Your task to perform on an android device: install app "YouTube Kids" Image 0: 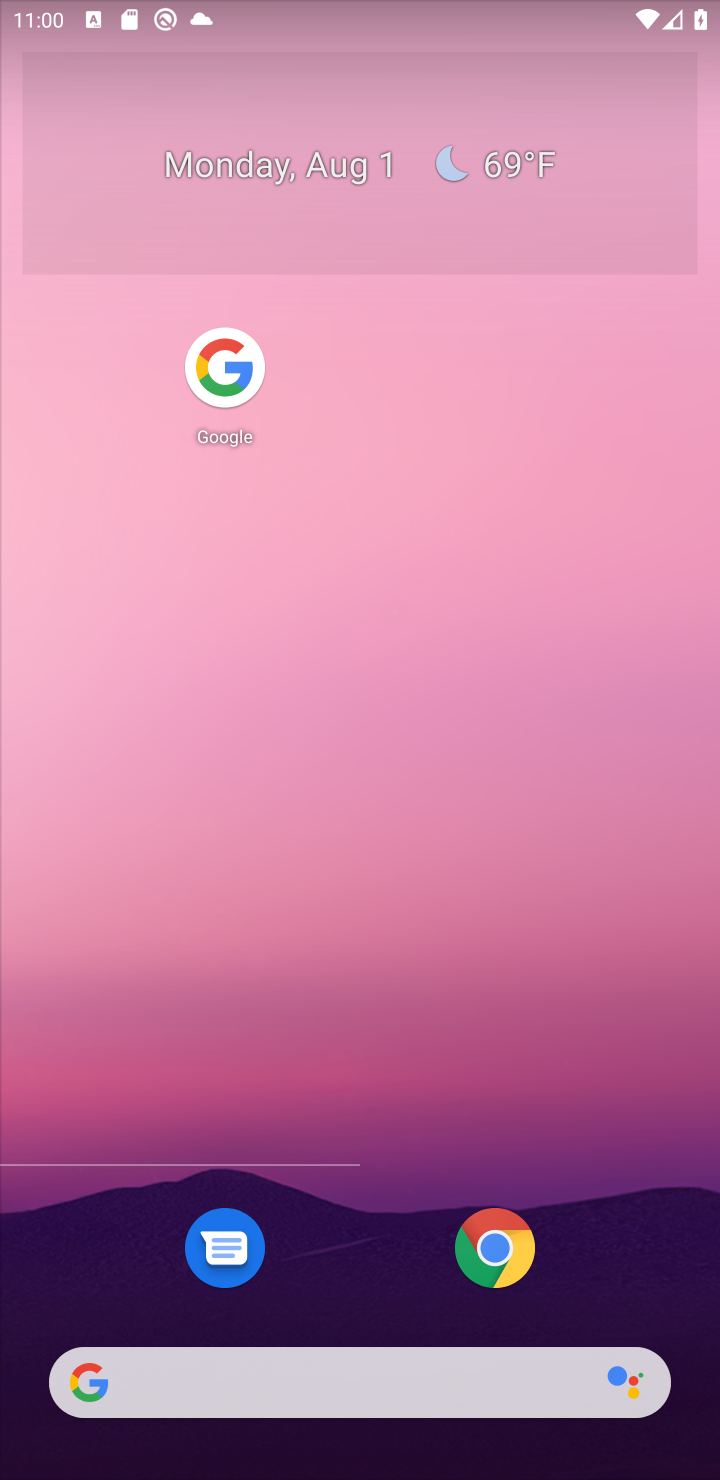
Step 0: drag from (394, 677) to (474, 55)
Your task to perform on an android device: install app "YouTube Kids" Image 1: 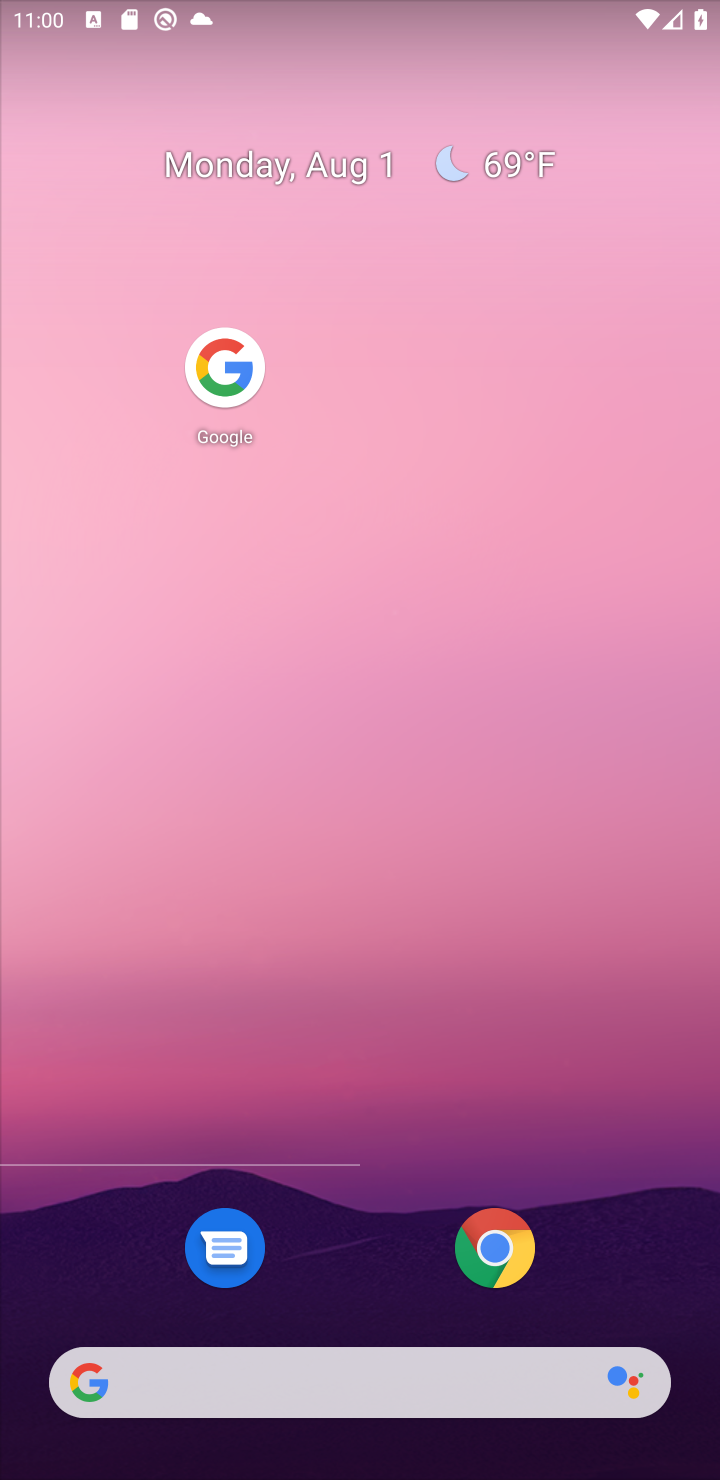
Step 1: drag from (398, 1179) to (540, 0)
Your task to perform on an android device: install app "YouTube Kids" Image 2: 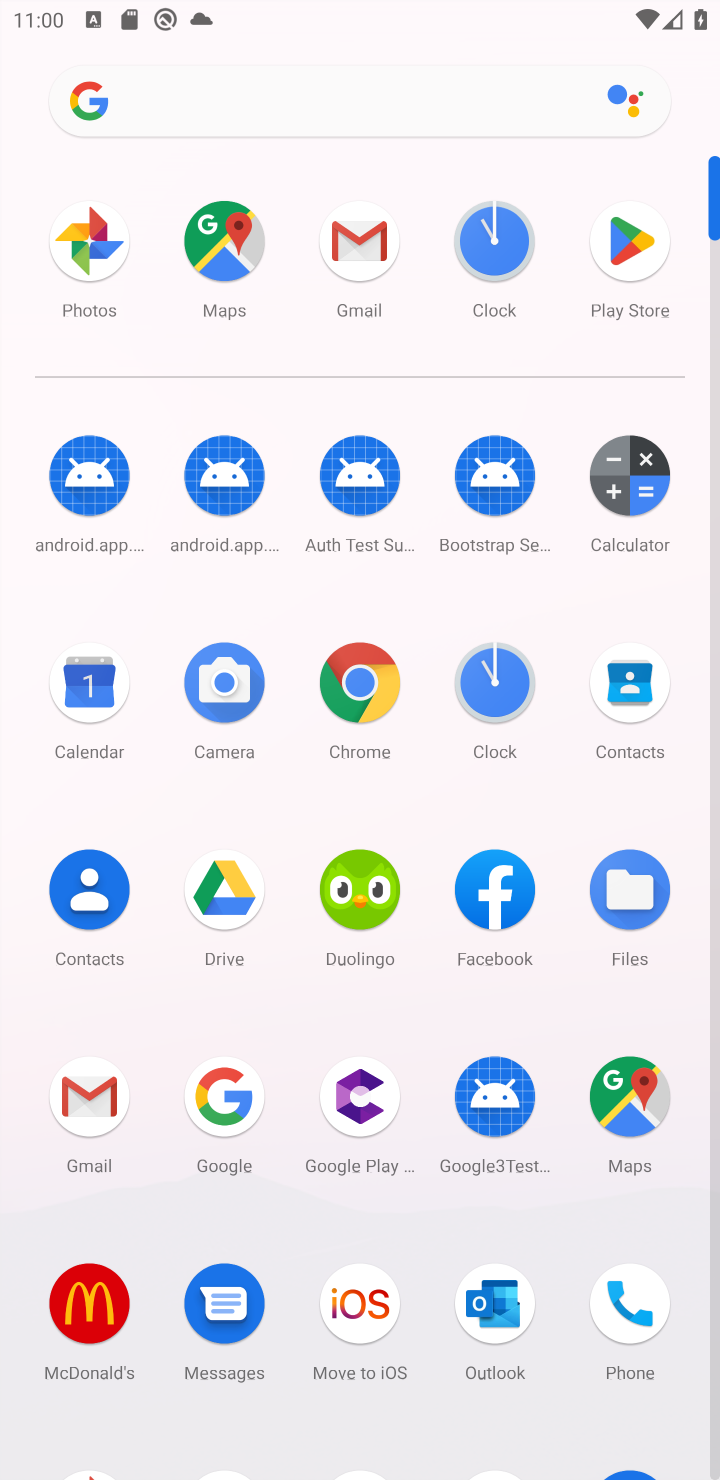
Step 2: click (633, 237)
Your task to perform on an android device: install app "YouTube Kids" Image 3: 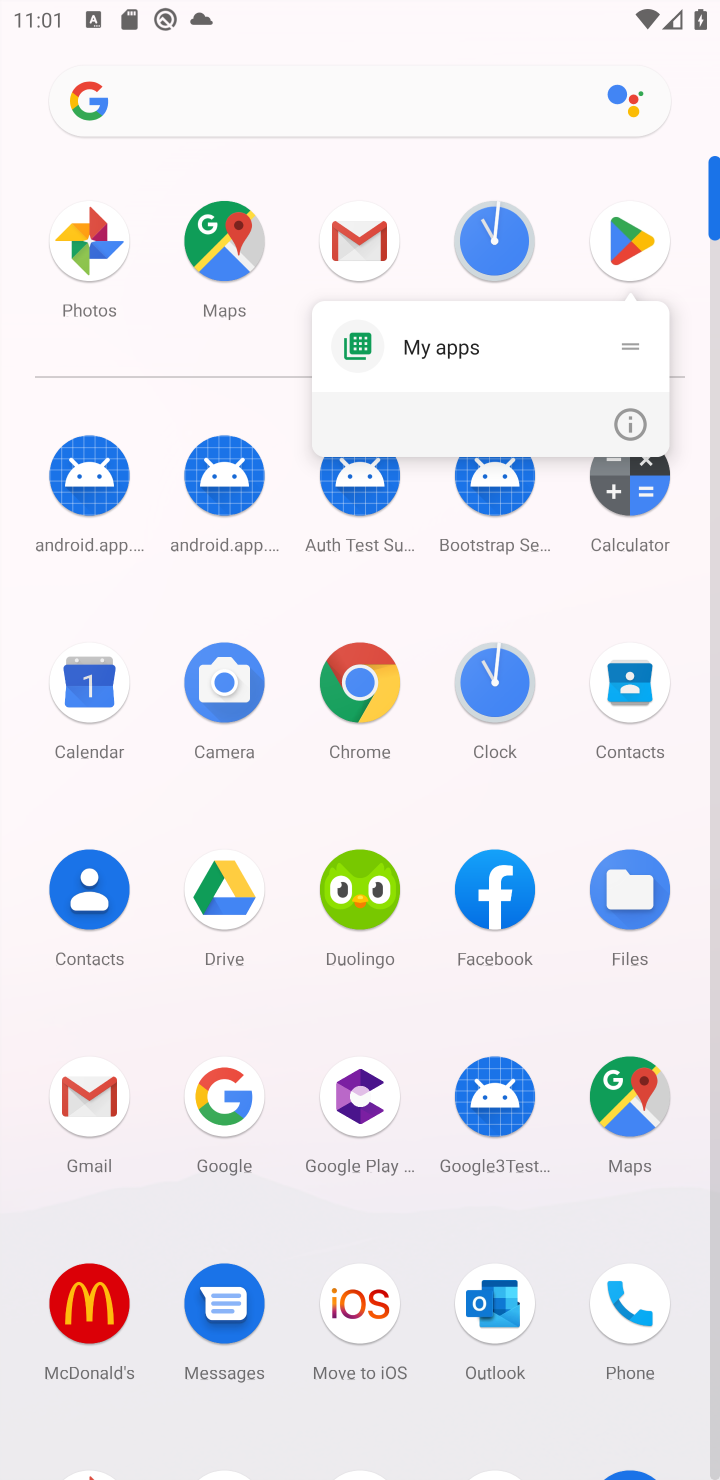
Step 3: click (267, 1205)
Your task to perform on an android device: install app "YouTube Kids" Image 4: 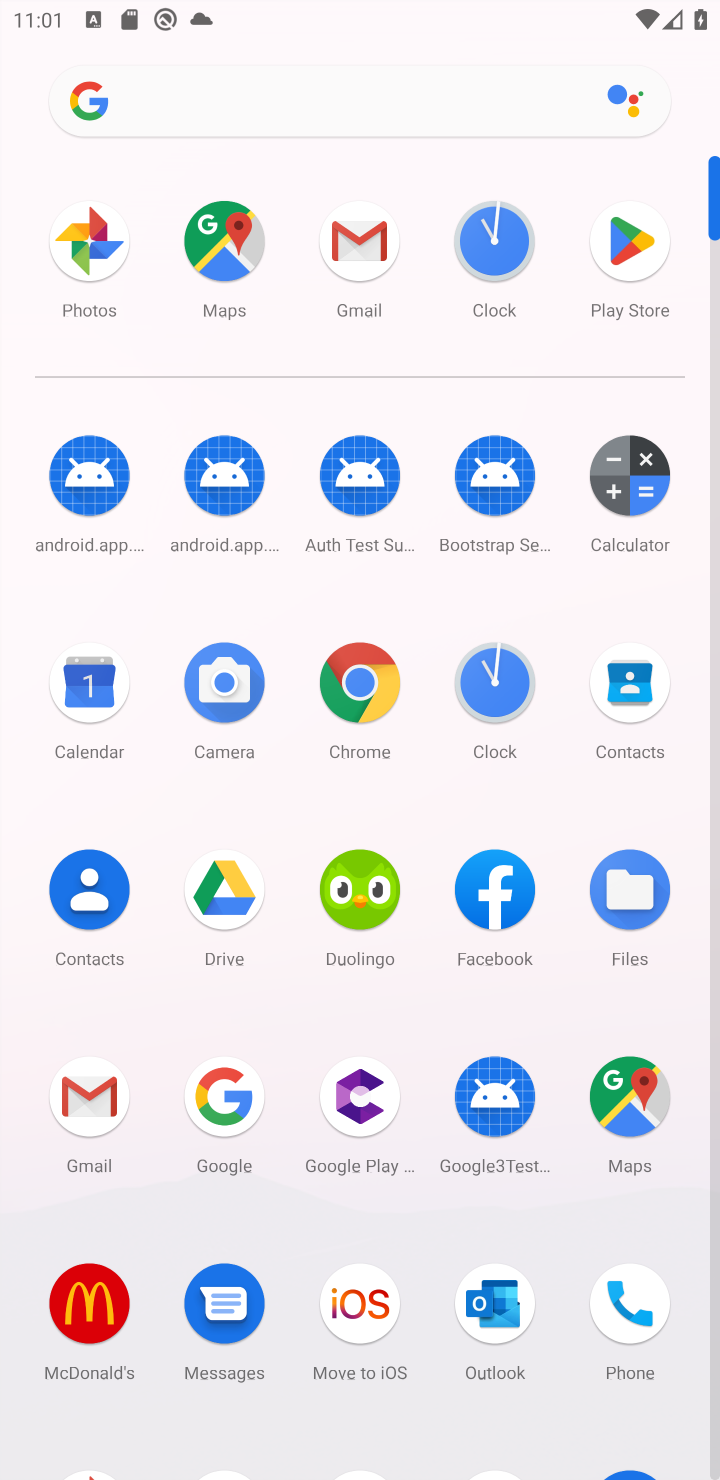
Step 4: drag from (267, 1205) to (440, 304)
Your task to perform on an android device: install app "YouTube Kids" Image 5: 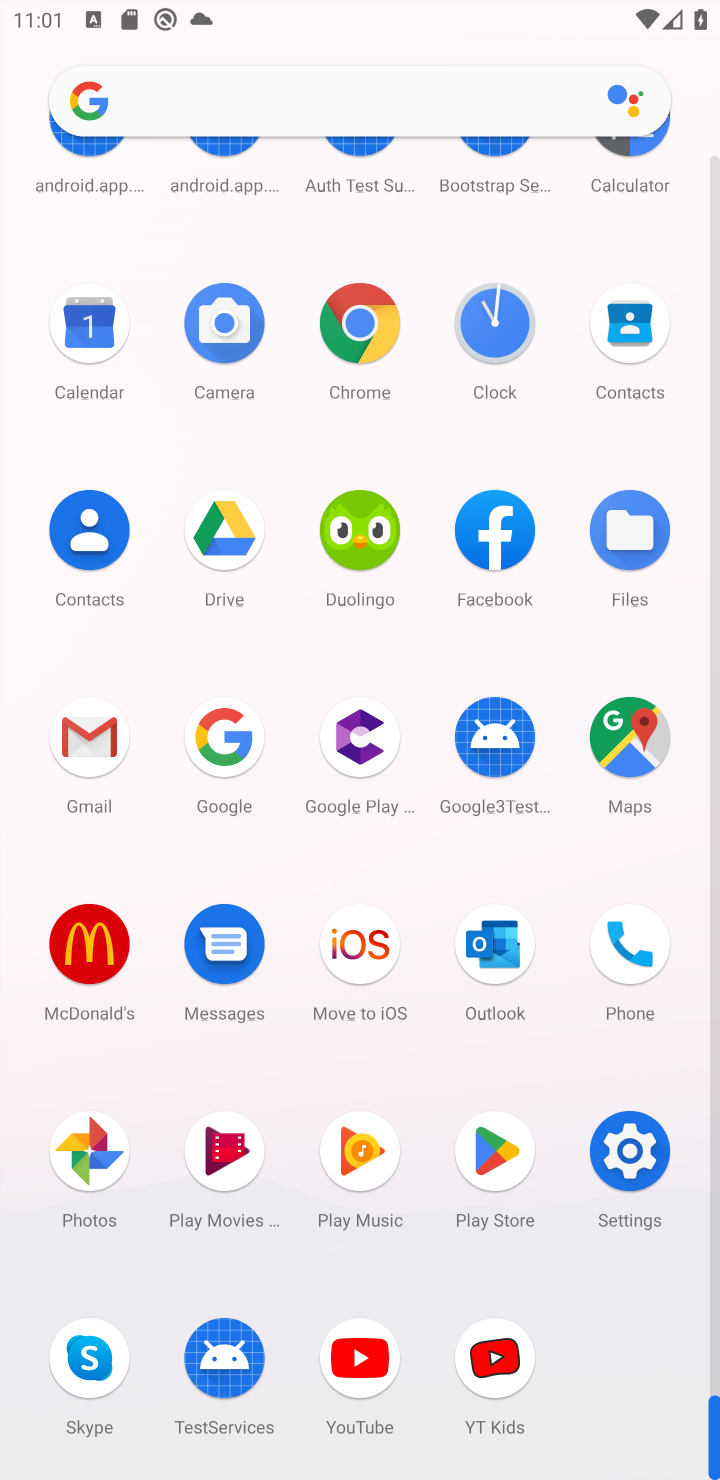
Step 5: click (497, 1146)
Your task to perform on an android device: install app "YouTube Kids" Image 6: 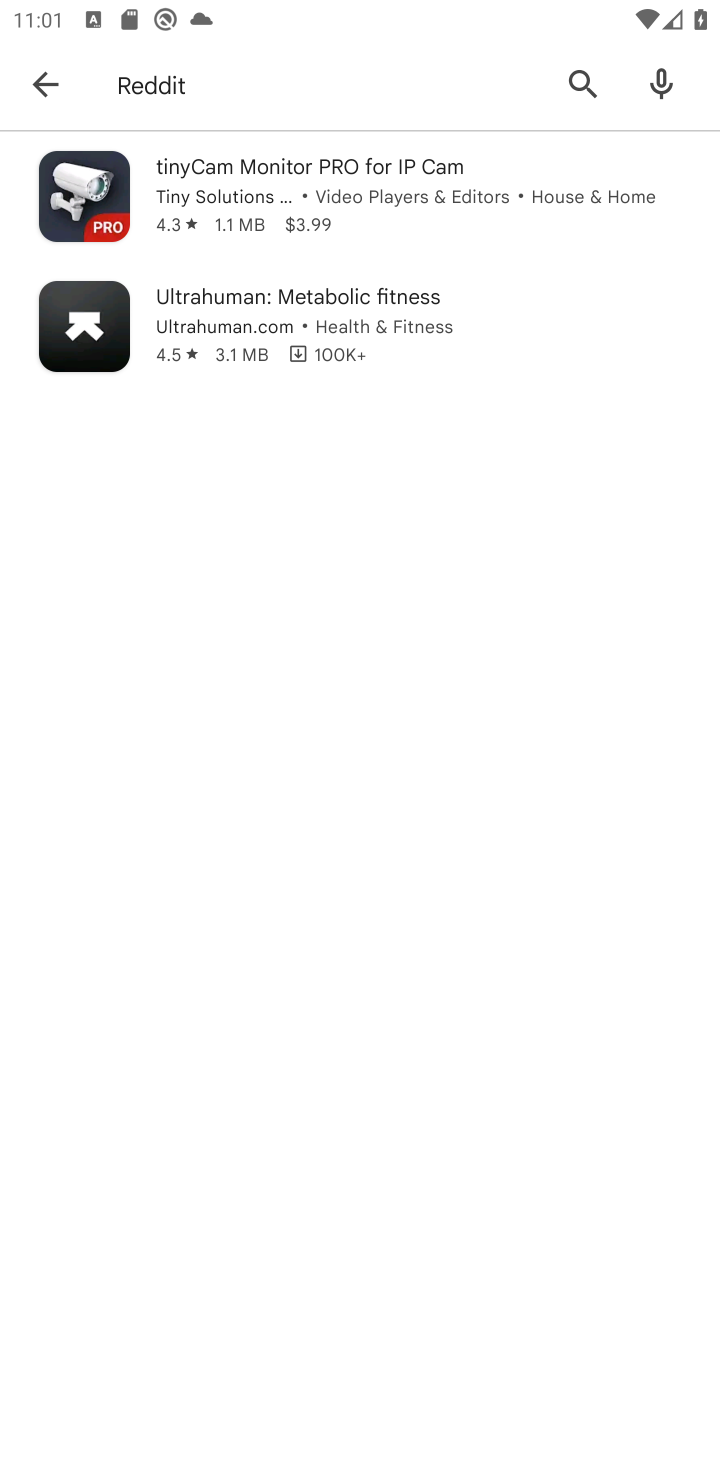
Step 6: click (324, 100)
Your task to perform on an android device: install app "YouTube Kids" Image 7: 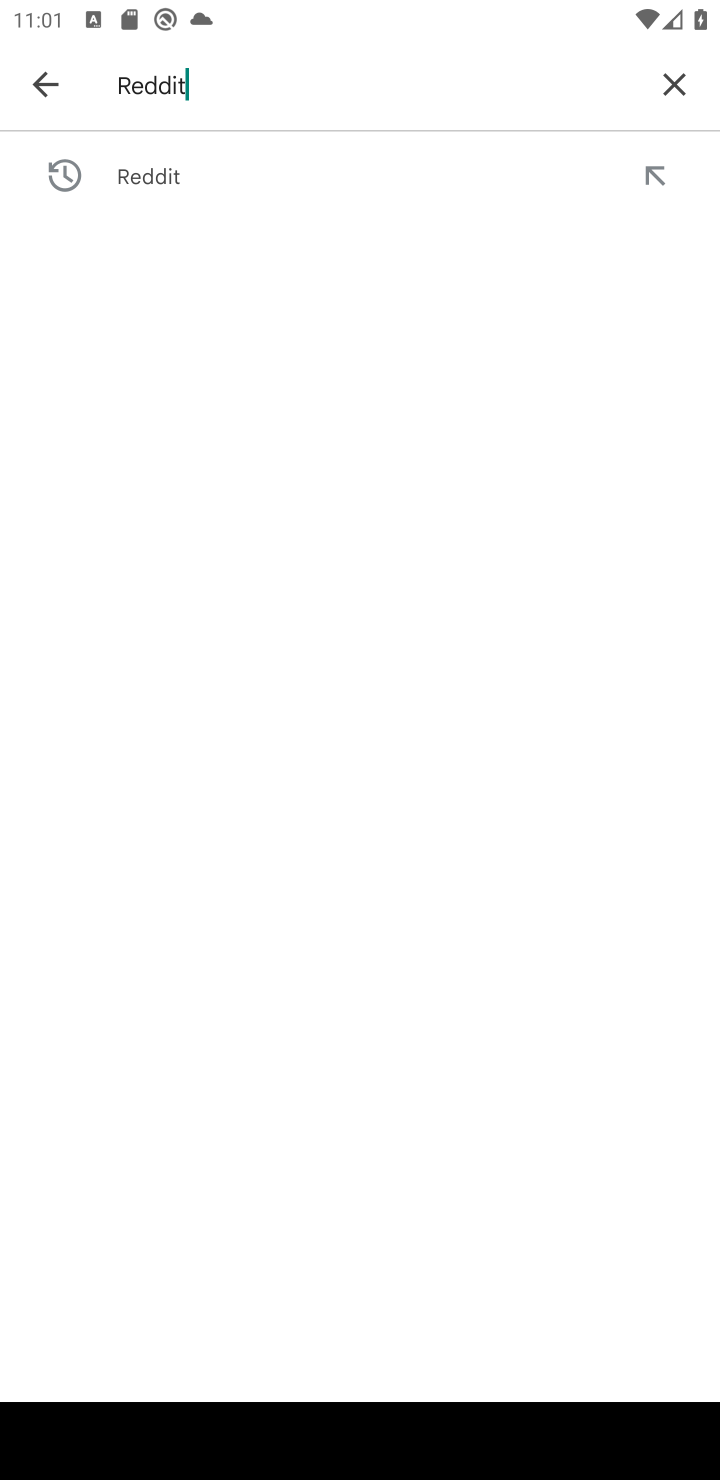
Step 7: click (668, 73)
Your task to perform on an android device: install app "YouTube Kids" Image 8: 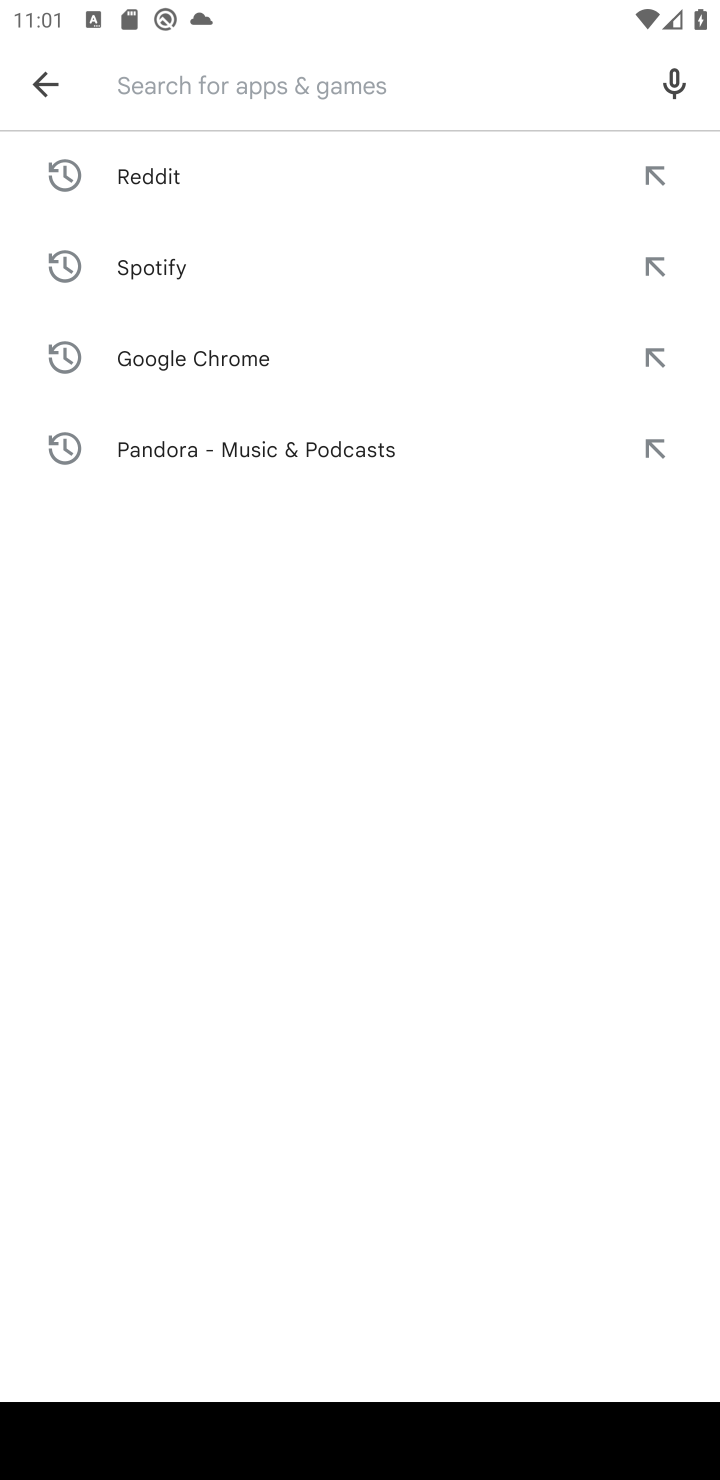
Step 8: type "YouTube Kids"
Your task to perform on an android device: install app "YouTube Kids" Image 9: 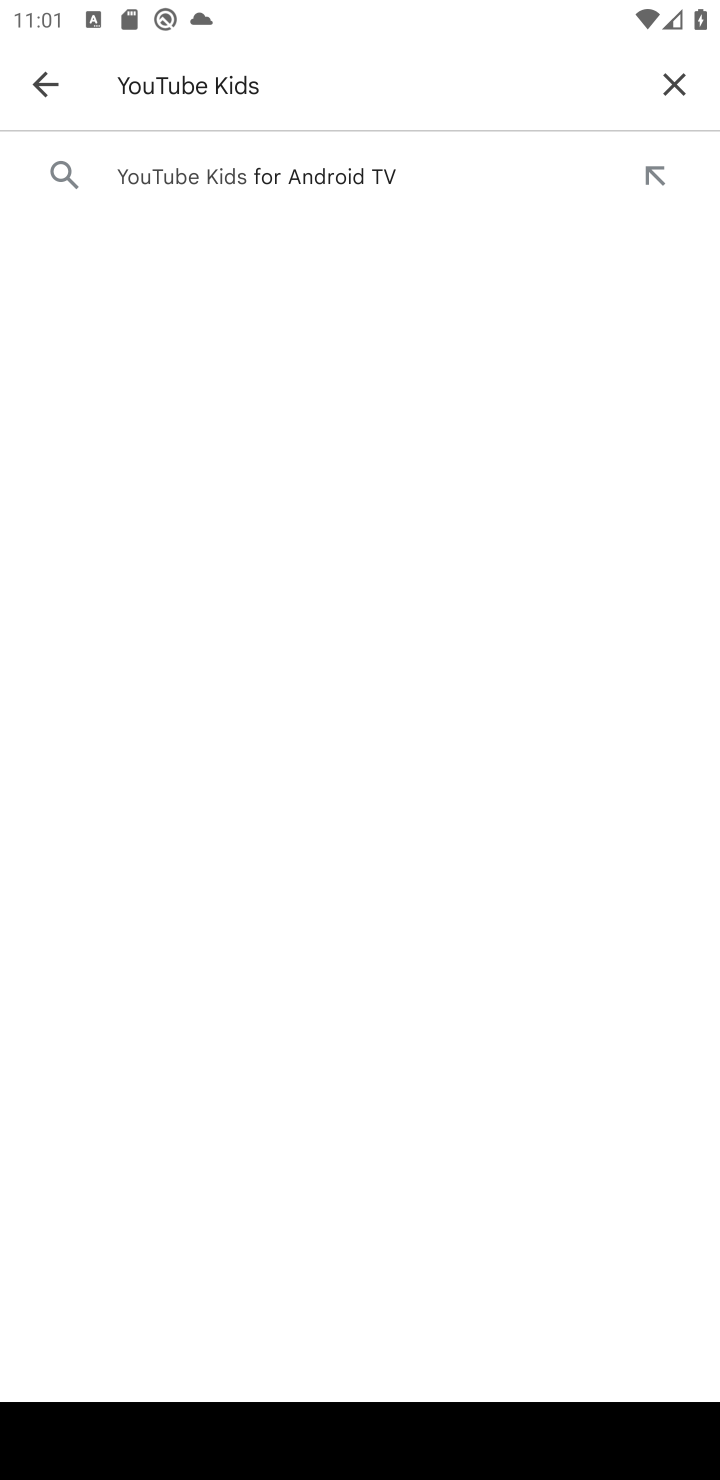
Step 9: press enter
Your task to perform on an android device: install app "YouTube Kids" Image 10: 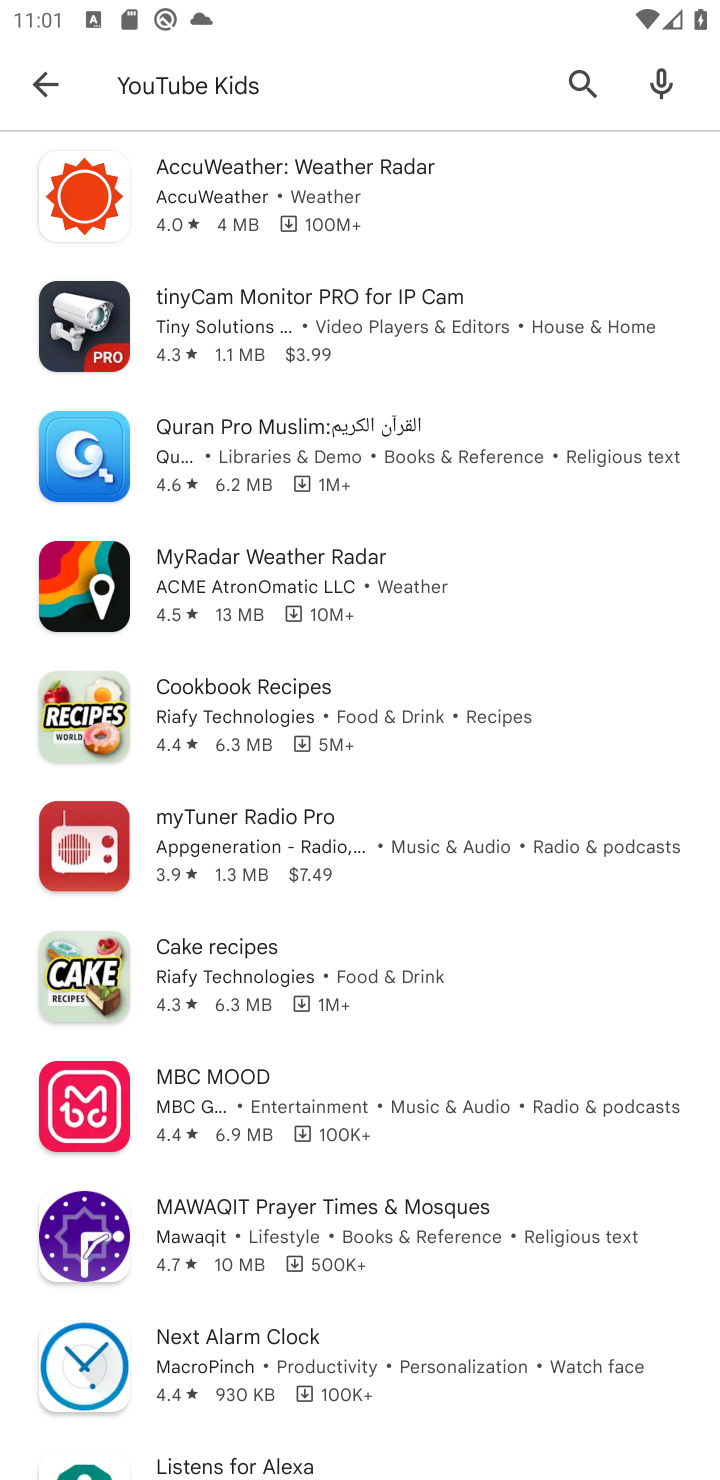
Step 10: task complete